Your task to perform on an android device: Open CNN.com Image 0: 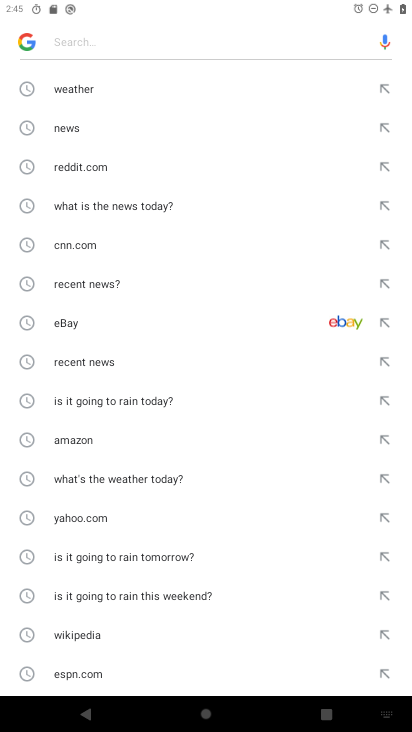
Step 0: press home button
Your task to perform on an android device: Open CNN.com Image 1: 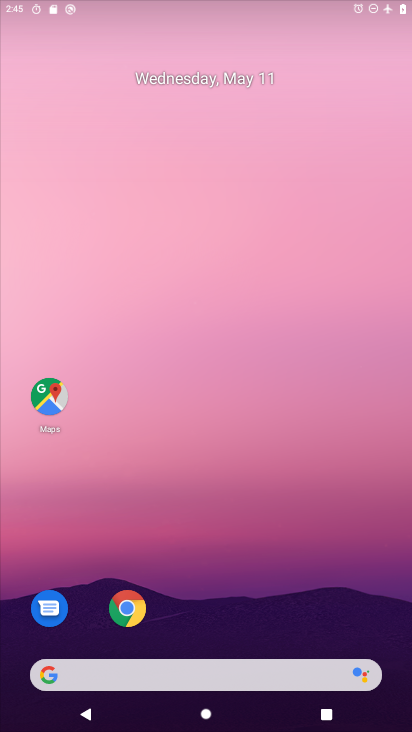
Step 1: drag from (239, 591) to (264, 72)
Your task to perform on an android device: Open CNN.com Image 2: 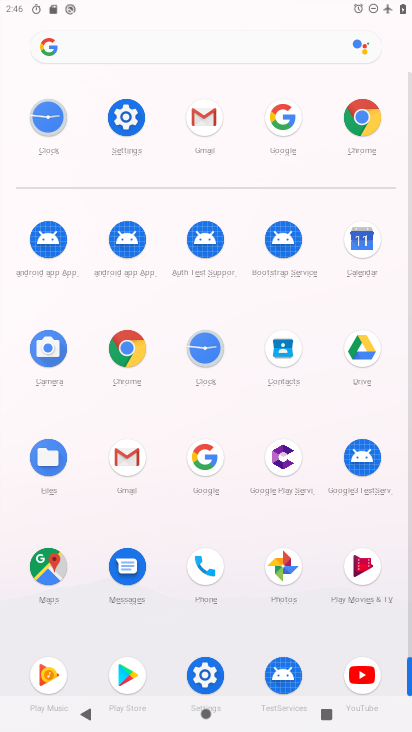
Step 2: click (124, 378)
Your task to perform on an android device: Open CNN.com Image 3: 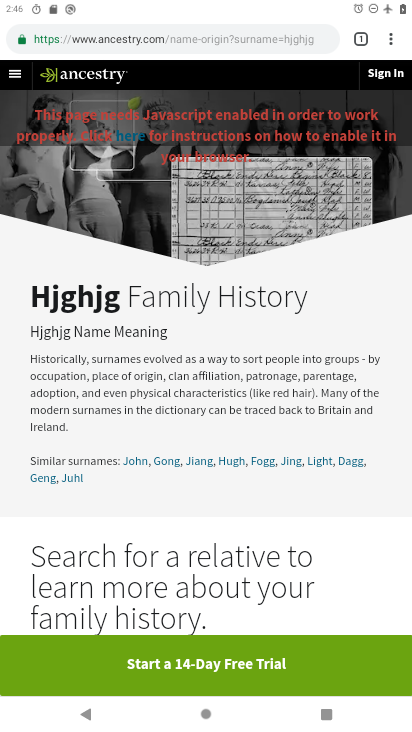
Step 3: click (199, 36)
Your task to perform on an android device: Open CNN.com Image 4: 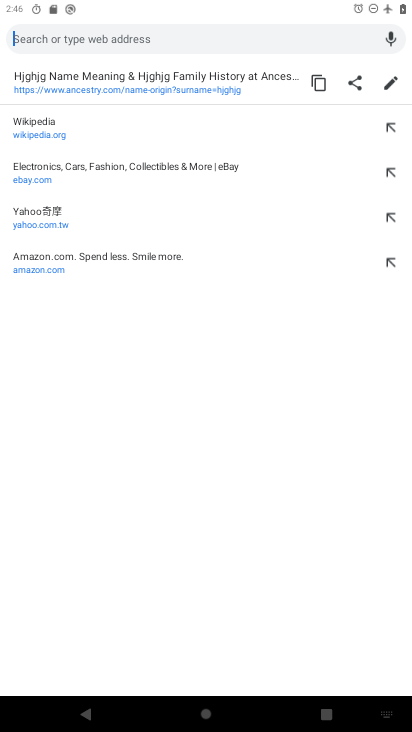
Step 4: type "cnn.com"
Your task to perform on an android device: Open CNN.com Image 5: 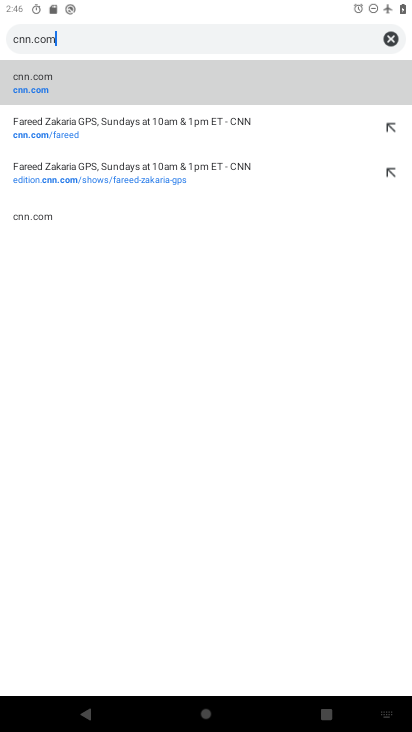
Step 5: click (151, 96)
Your task to perform on an android device: Open CNN.com Image 6: 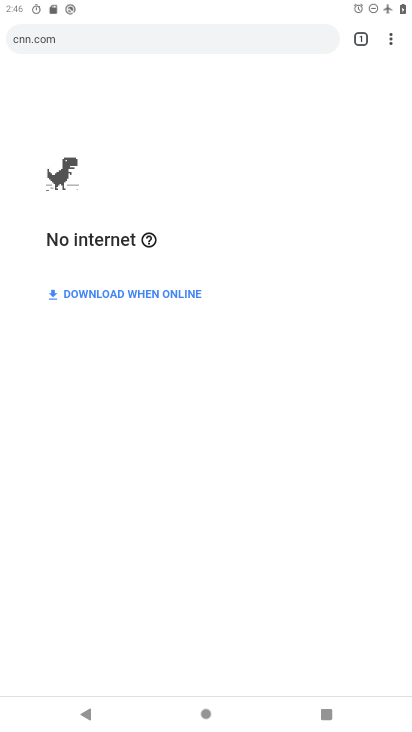
Step 6: task complete